Your task to perform on an android device: set the stopwatch Image 0: 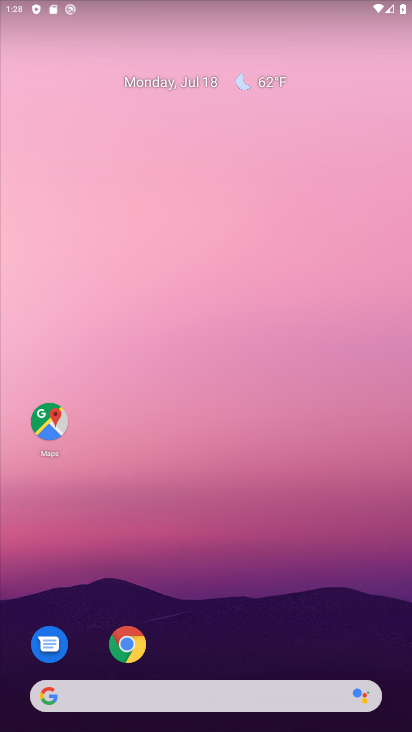
Step 0: drag from (255, 626) to (91, 97)
Your task to perform on an android device: set the stopwatch Image 1: 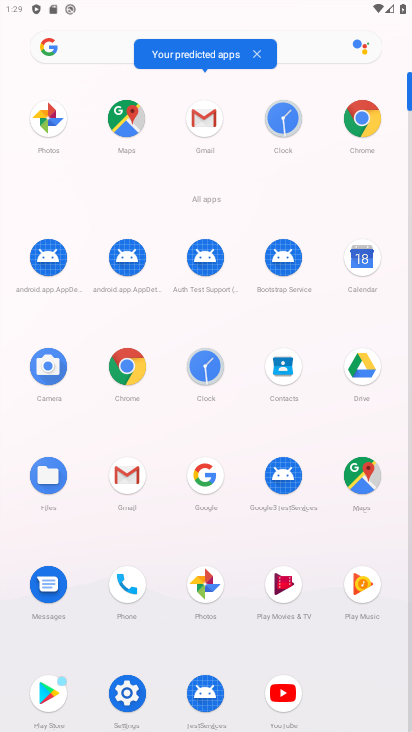
Step 1: drag from (201, 372) to (135, 277)
Your task to perform on an android device: set the stopwatch Image 2: 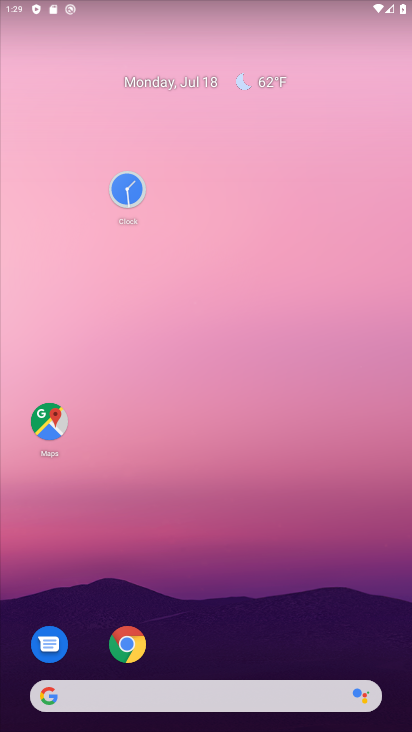
Step 2: click (117, 188)
Your task to perform on an android device: set the stopwatch Image 3: 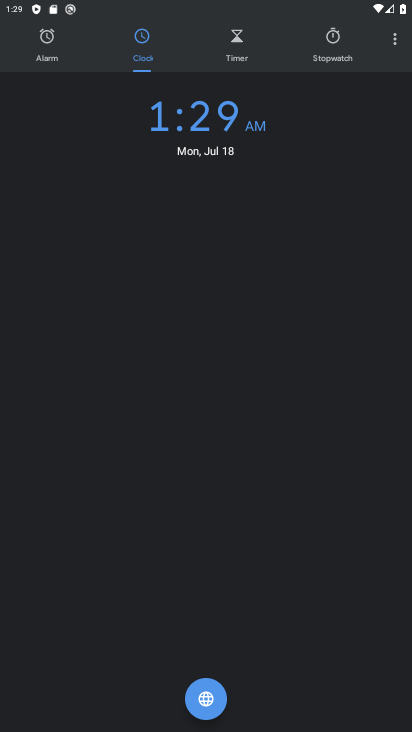
Step 3: click (330, 52)
Your task to perform on an android device: set the stopwatch Image 4: 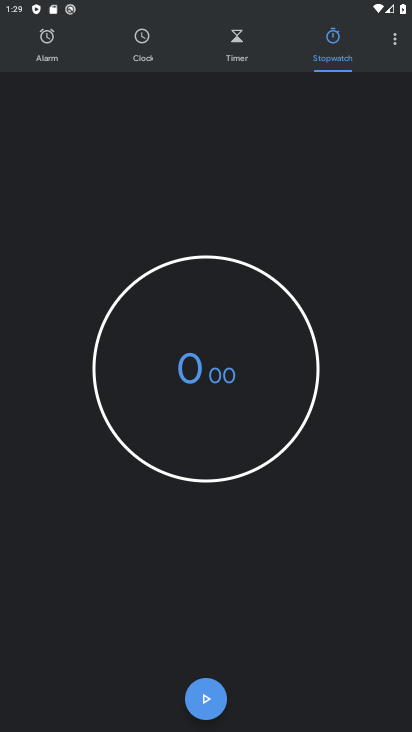
Step 4: click (223, 383)
Your task to perform on an android device: set the stopwatch Image 5: 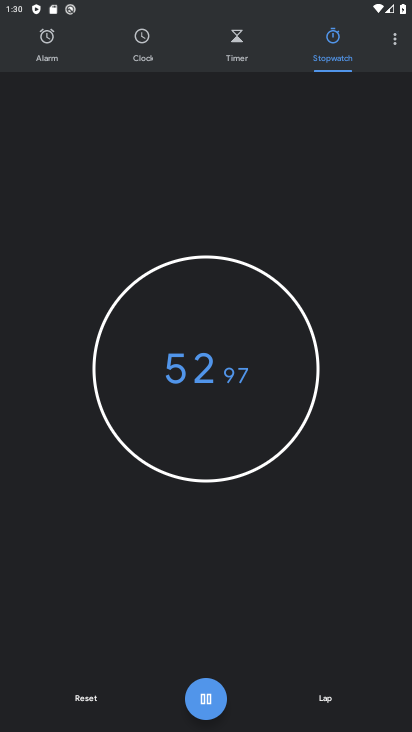
Step 5: task complete